Your task to perform on an android device: Search for Italian restaurants on Maps Image 0: 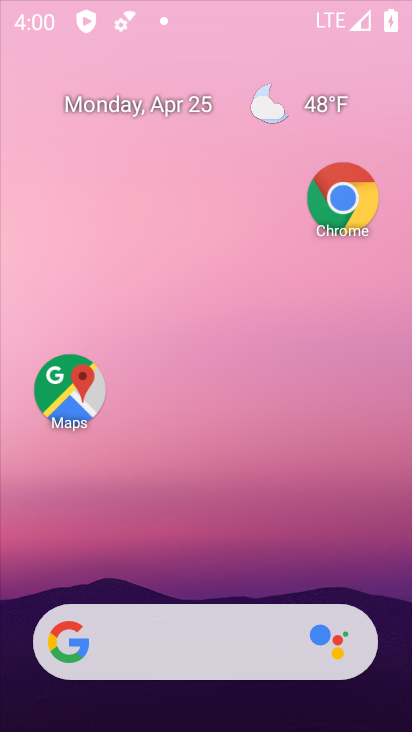
Step 0: press home button
Your task to perform on an android device: Search for Italian restaurants on Maps Image 1: 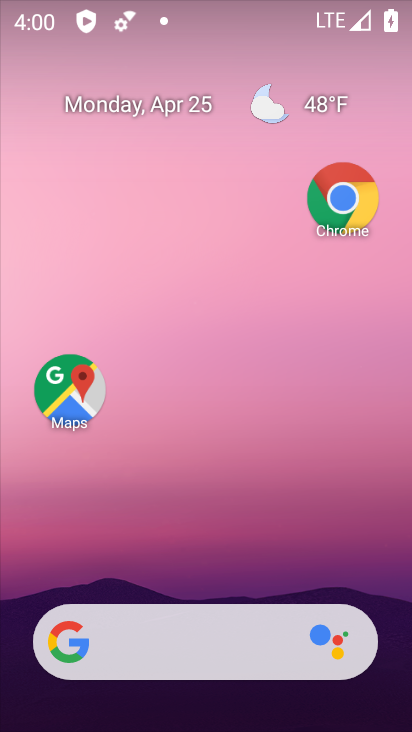
Step 1: drag from (219, 563) to (316, 212)
Your task to perform on an android device: Search for Italian restaurants on Maps Image 2: 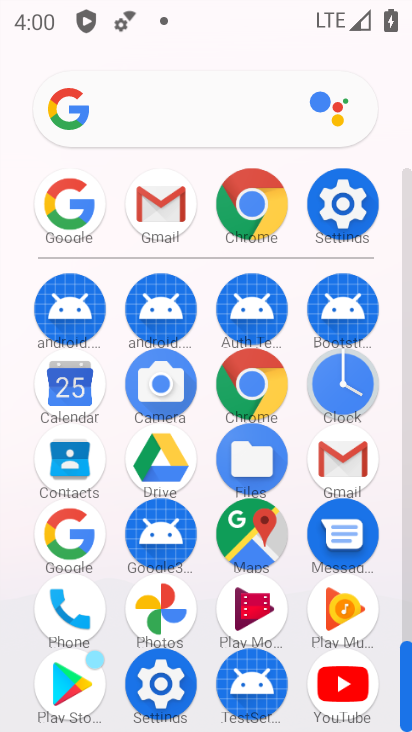
Step 2: click (256, 538)
Your task to perform on an android device: Search for Italian restaurants on Maps Image 3: 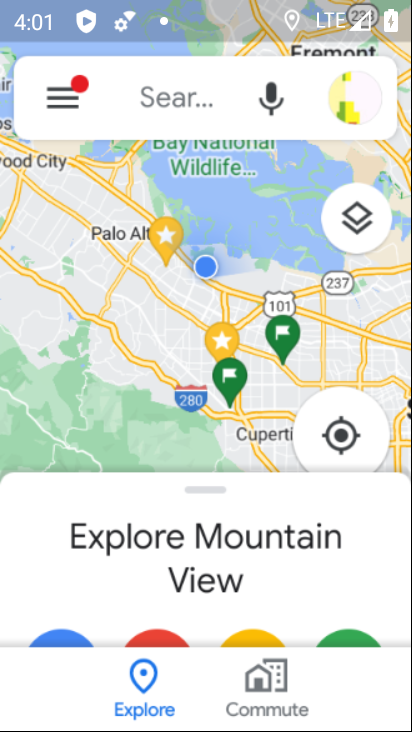
Step 3: click (172, 98)
Your task to perform on an android device: Search for Italian restaurants on Maps Image 4: 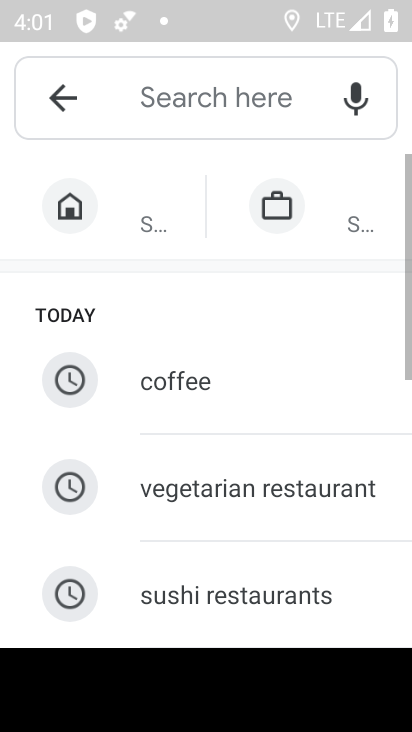
Step 4: drag from (212, 513) to (410, 102)
Your task to perform on an android device: Search for Italian restaurants on Maps Image 5: 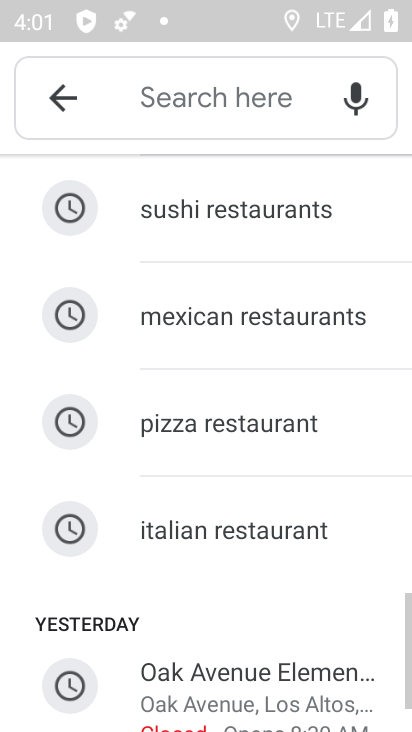
Step 5: click (254, 524)
Your task to perform on an android device: Search for Italian restaurants on Maps Image 6: 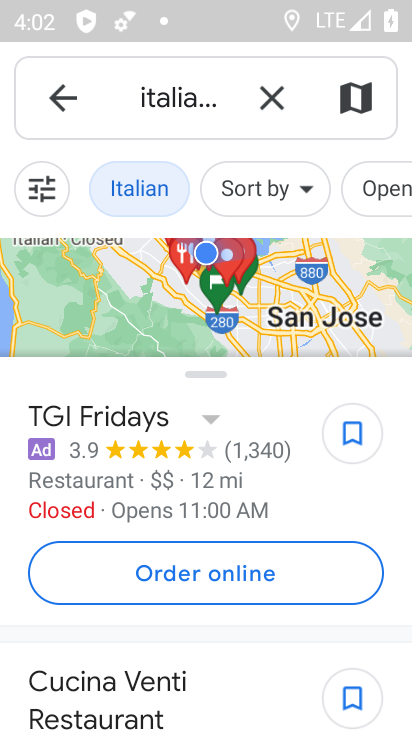
Step 6: task complete